Your task to perform on an android device: Go to privacy settings Image 0: 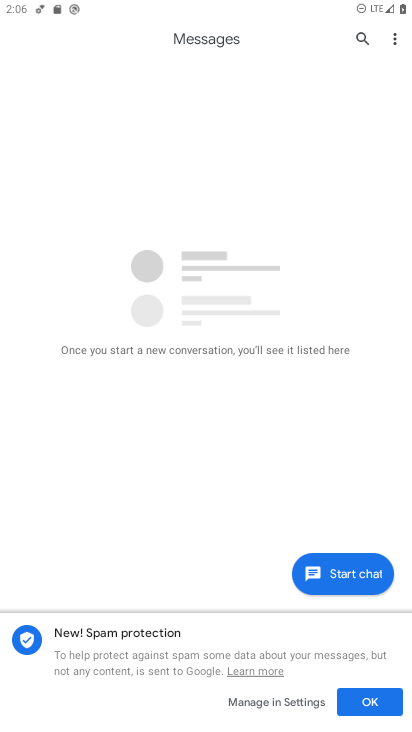
Step 0: press home button
Your task to perform on an android device: Go to privacy settings Image 1: 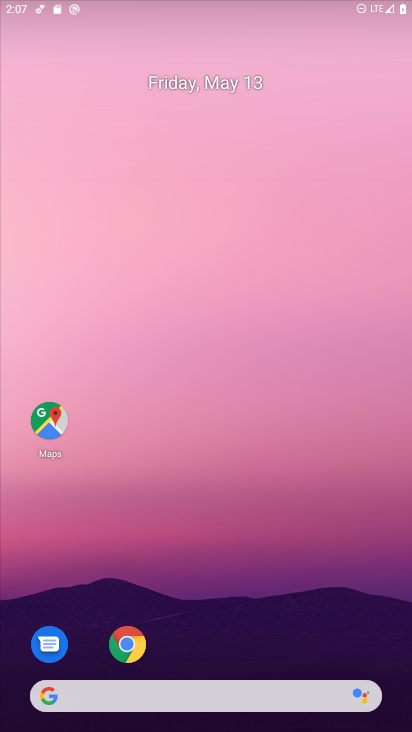
Step 1: drag from (379, 648) to (275, 105)
Your task to perform on an android device: Go to privacy settings Image 2: 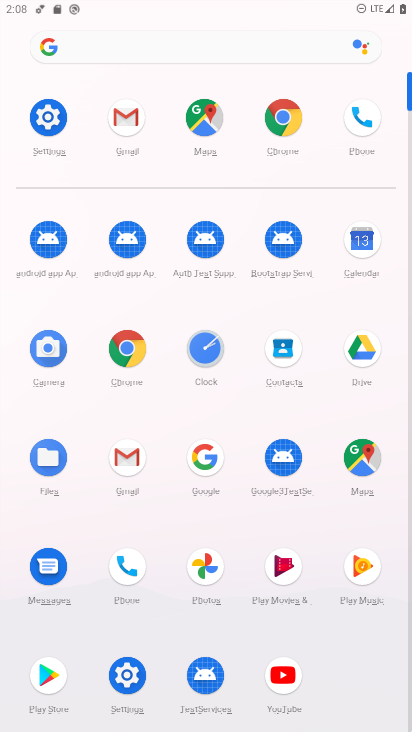
Step 2: click (127, 697)
Your task to perform on an android device: Go to privacy settings Image 3: 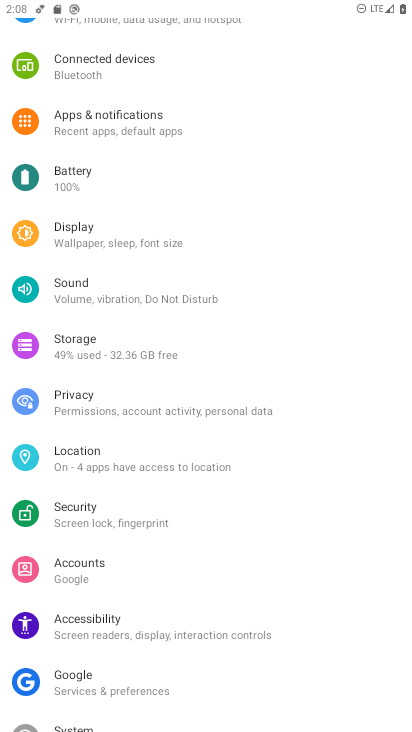
Step 3: click (130, 409)
Your task to perform on an android device: Go to privacy settings Image 4: 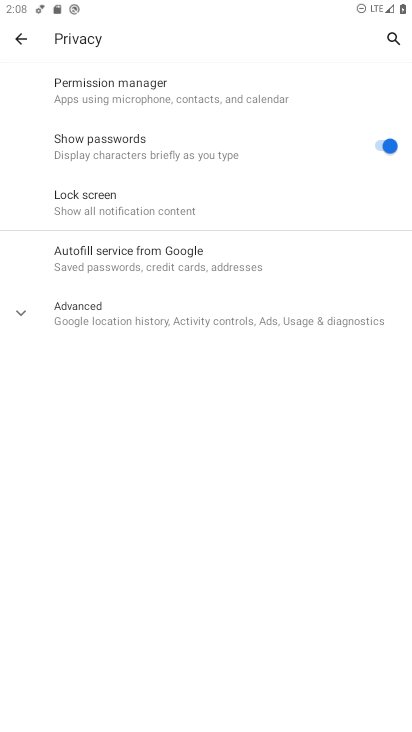
Step 4: task complete